Your task to perform on an android device: check out phone information Image 0: 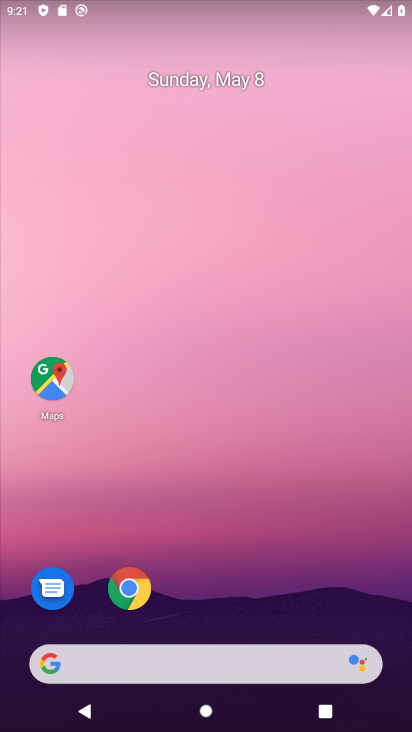
Step 0: drag from (222, 634) to (278, 236)
Your task to perform on an android device: check out phone information Image 1: 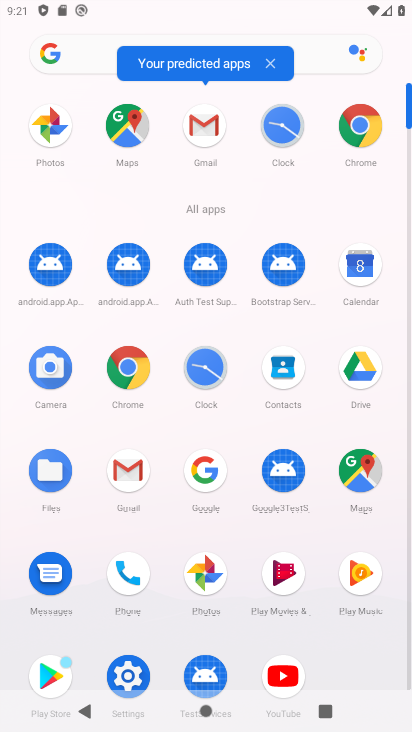
Step 1: click (130, 683)
Your task to perform on an android device: check out phone information Image 2: 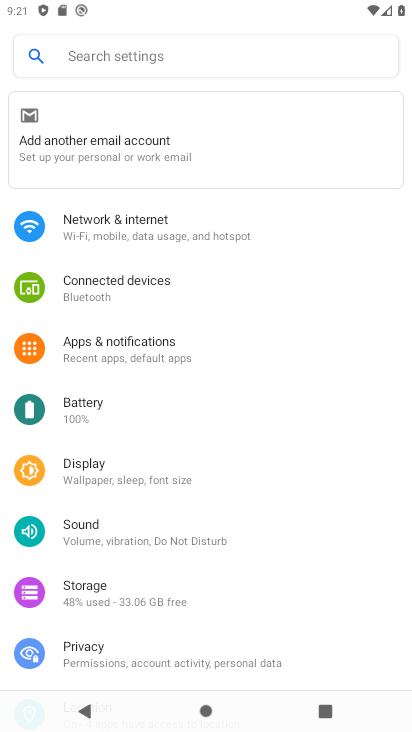
Step 2: drag from (226, 646) to (293, 219)
Your task to perform on an android device: check out phone information Image 3: 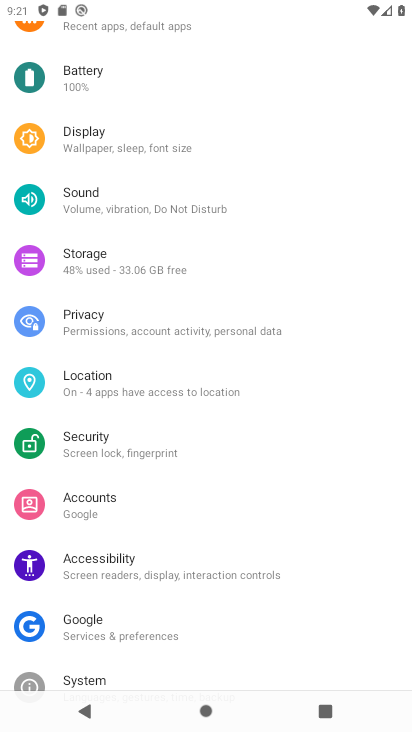
Step 3: drag from (167, 601) to (214, 288)
Your task to perform on an android device: check out phone information Image 4: 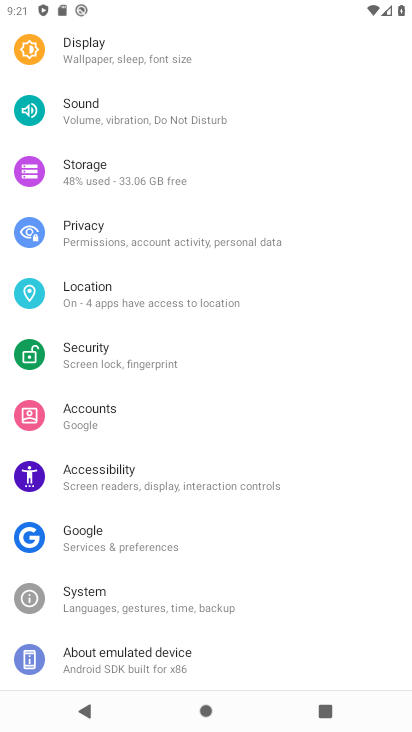
Step 4: click (227, 653)
Your task to perform on an android device: check out phone information Image 5: 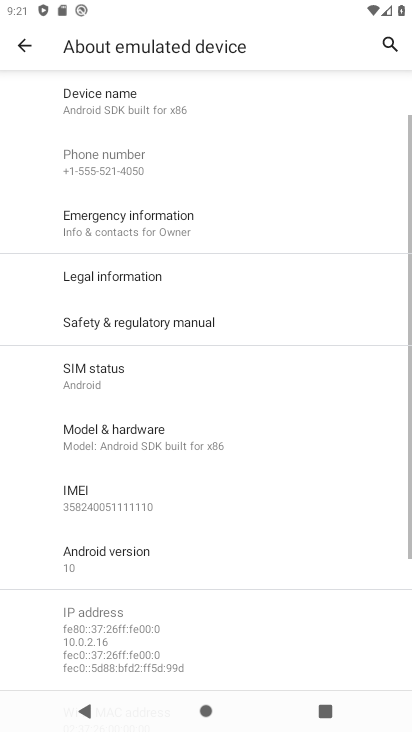
Step 5: task complete